Your task to perform on an android device: turn off airplane mode Image 0: 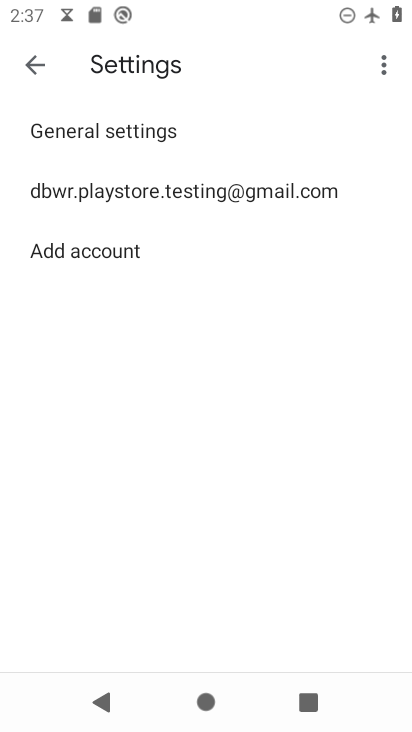
Step 0: press home button
Your task to perform on an android device: turn off airplane mode Image 1: 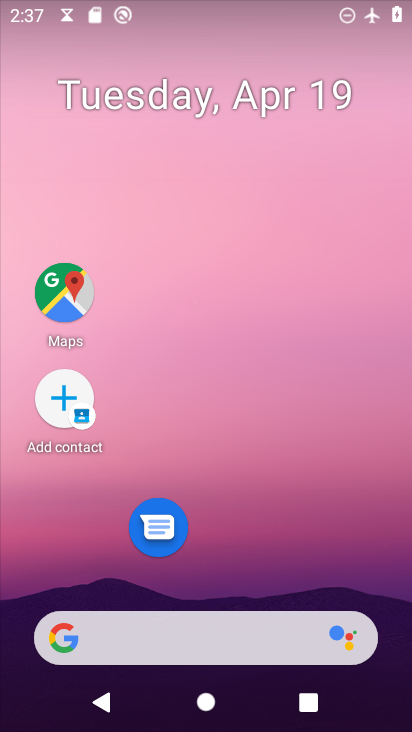
Step 1: drag from (291, 582) to (211, 182)
Your task to perform on an android device: turn off airplane mode Image 2: 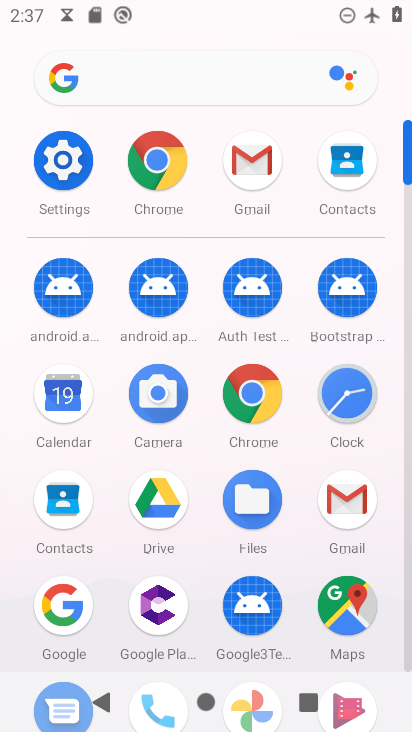
Step 2: click (64, 161)
Your task to perform on an android device: turn off airplane mode Image 3: 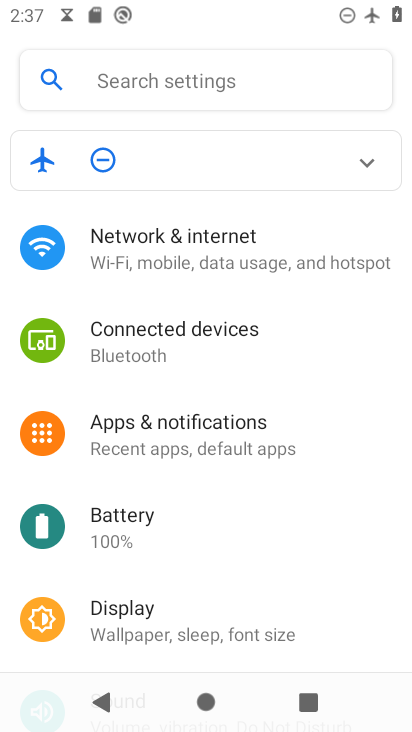
Step 3: click (211, 258)
Your task to perform on an android device: turn off airplane mode Image 4: 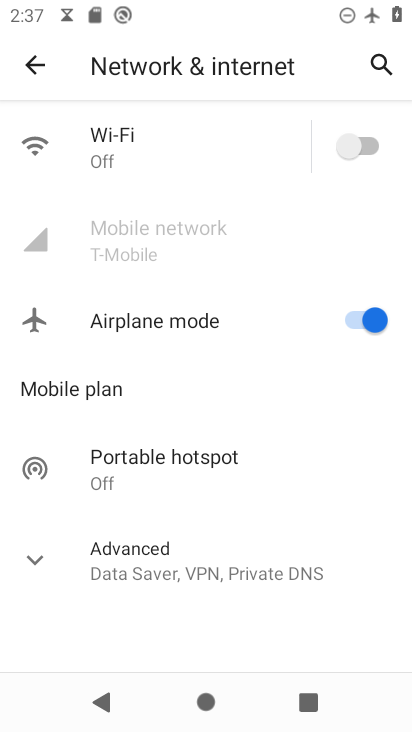
Step 4: click (373, 317)
Your task to perform on an android device: turn off airplane mode Image 5: 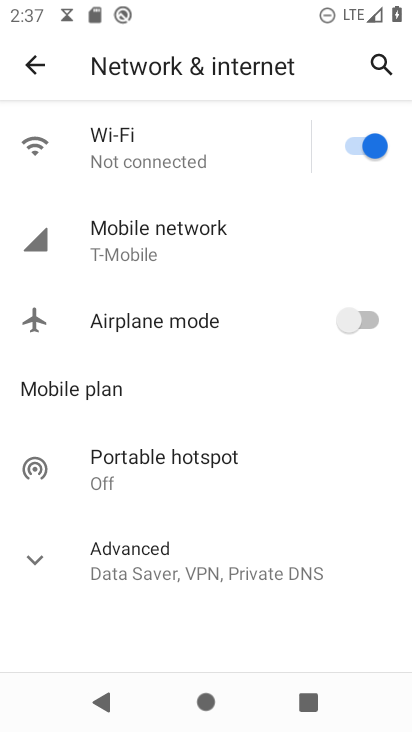
Step 5: task complete